Your task to perform on an android device: open app "Microsoft Outlook" (install if not already installed) Image 0: 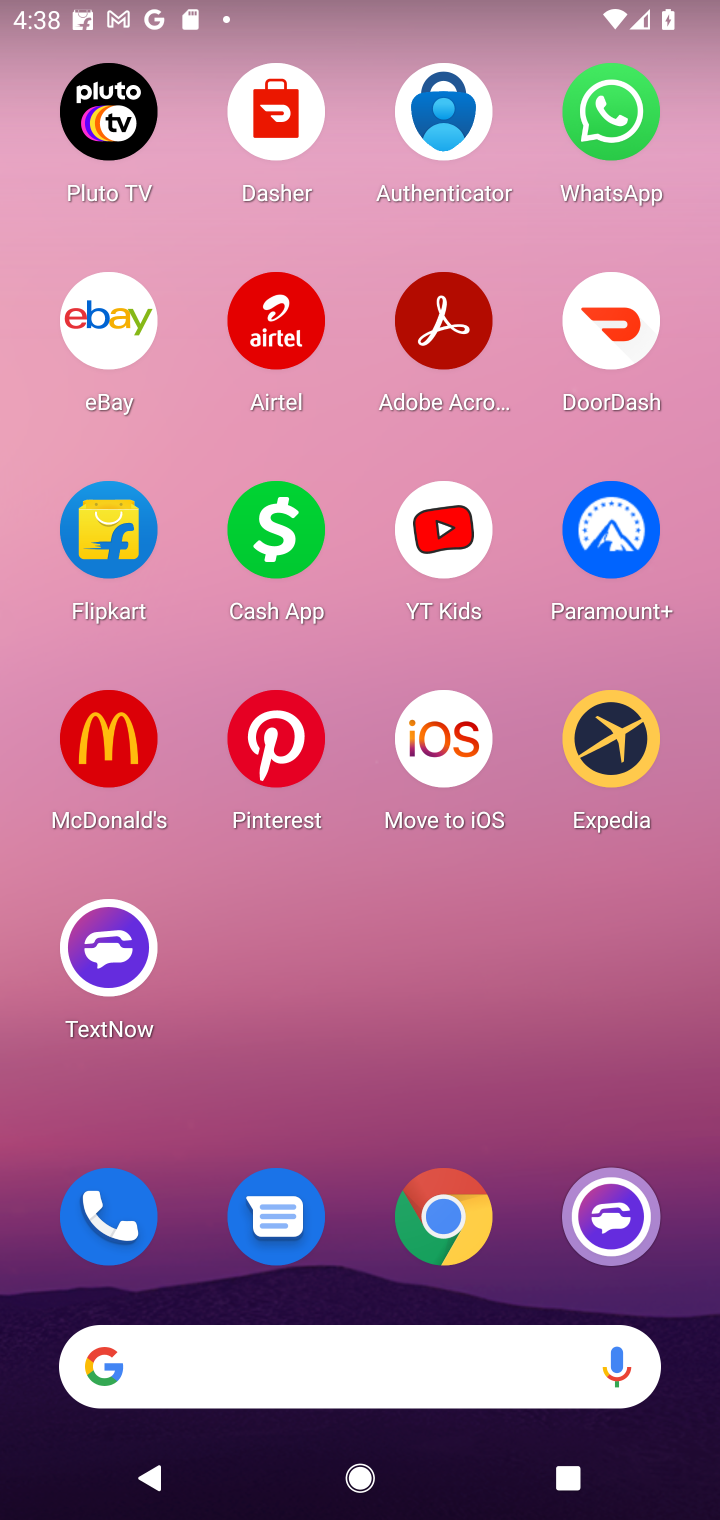
Step 0: click (424, 196)
Your task to perform on an android device: open app "Microsoft Outlook" (install if not already installed) Image 1: 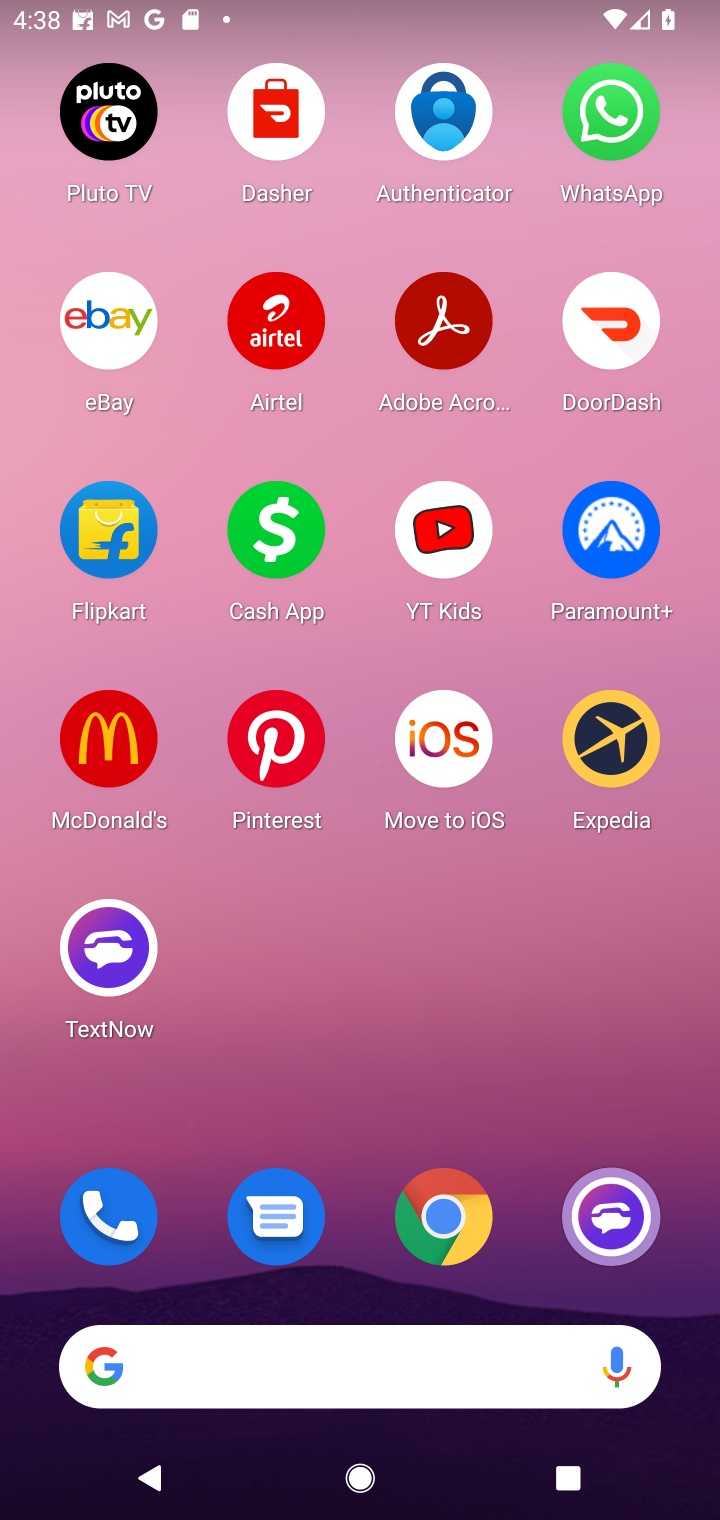
Step 1: drag from (353, 627) to (368, 0)
Your task to perform on an android device: open app "Microsoft Outlook" (install if not already installed) Image 2: 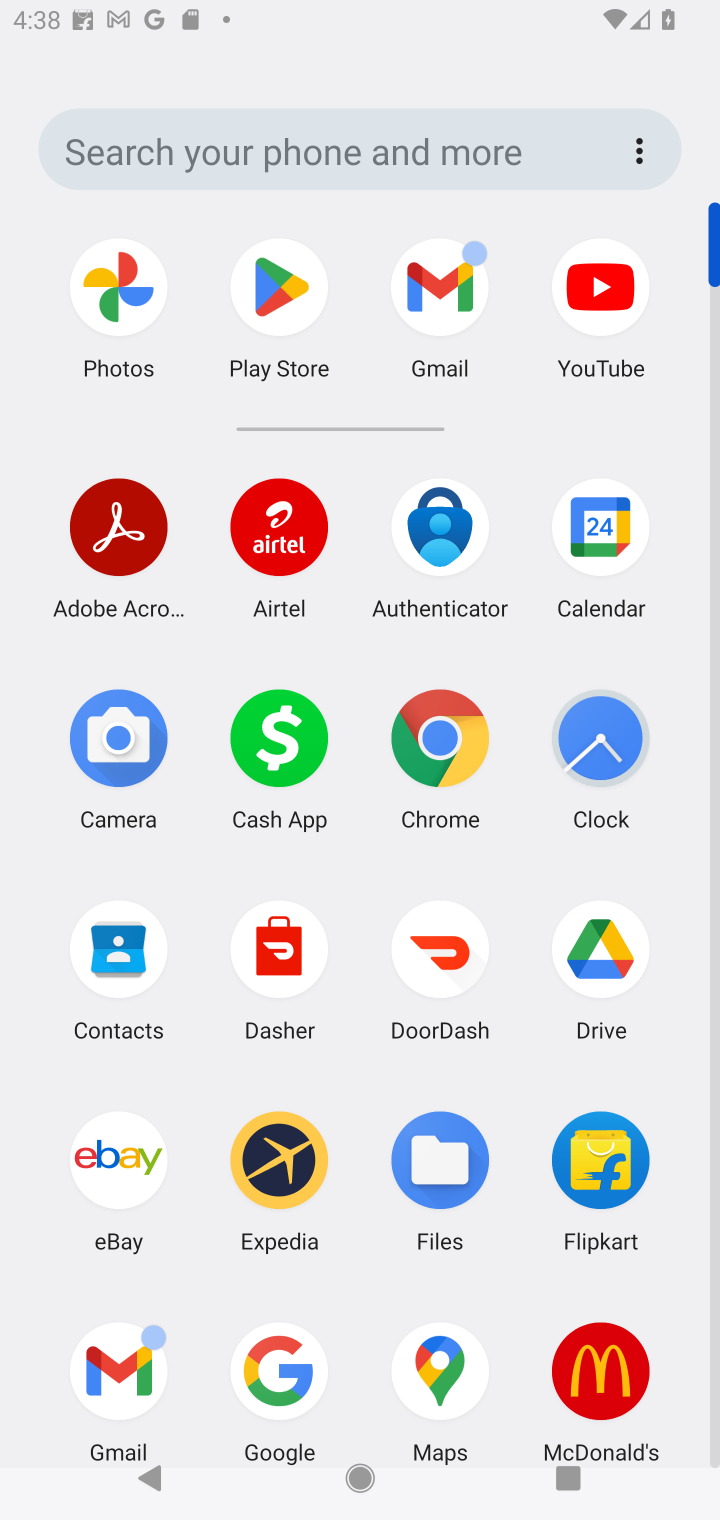
Step 2: click (287, 277)
Your task to perform on an android device: open app "Microsoft Outlook" (install if not already installed) Image 3: 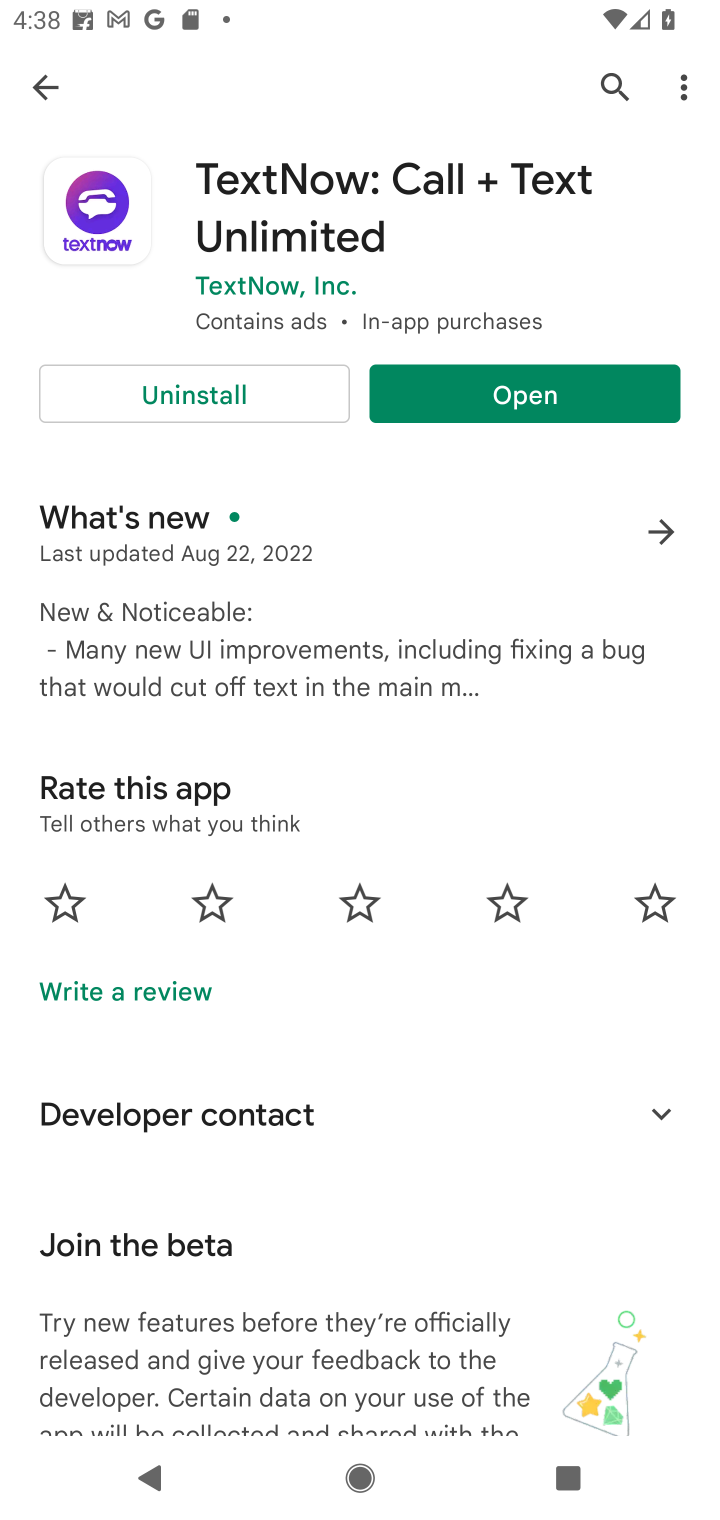
Step 3: click (602, 77)
Your task to perform on an android device: open app "Microsoft Outlook" (install if not already installed) Image 4: 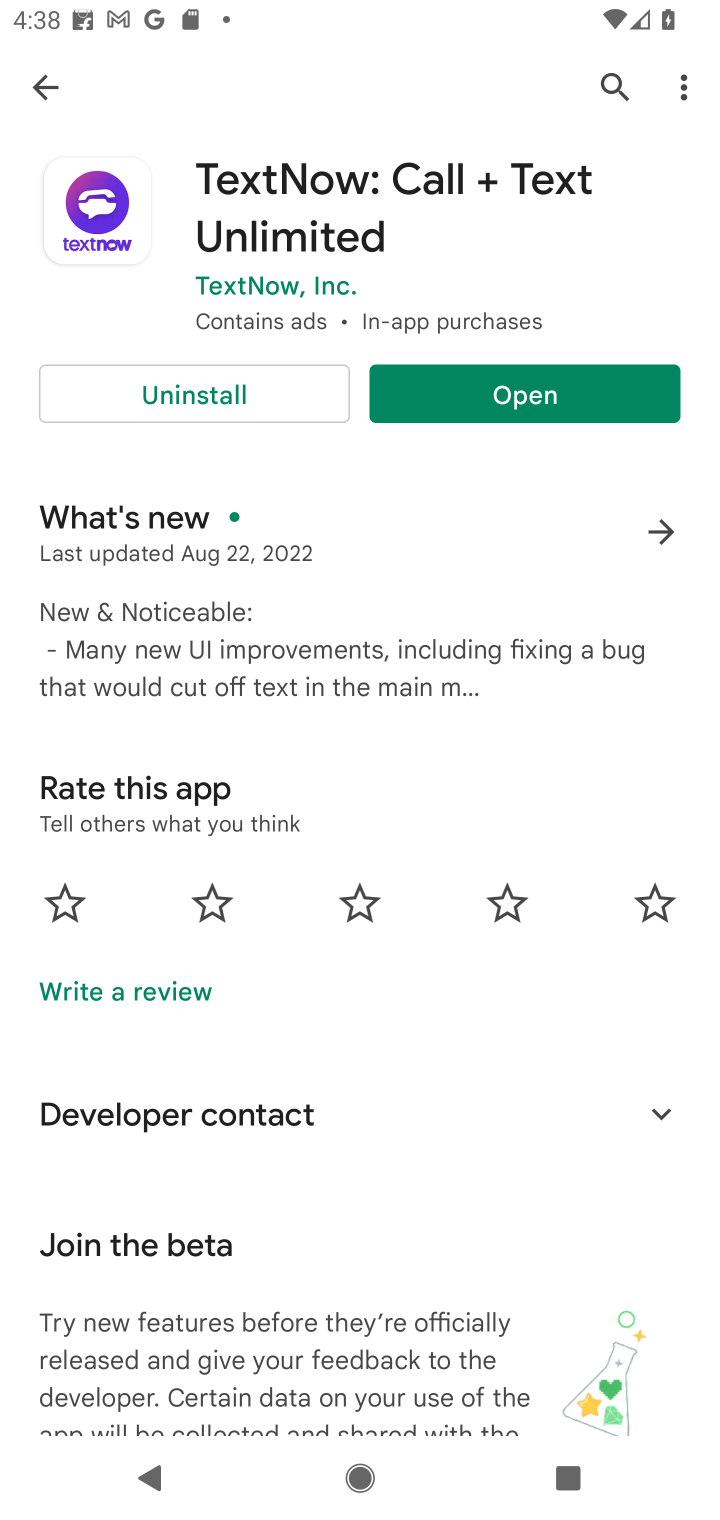
Step 4: click (619, 95)
Your task to perform on an android device: open app "Microsoft Outlook" (install if not already installed) Image 5: 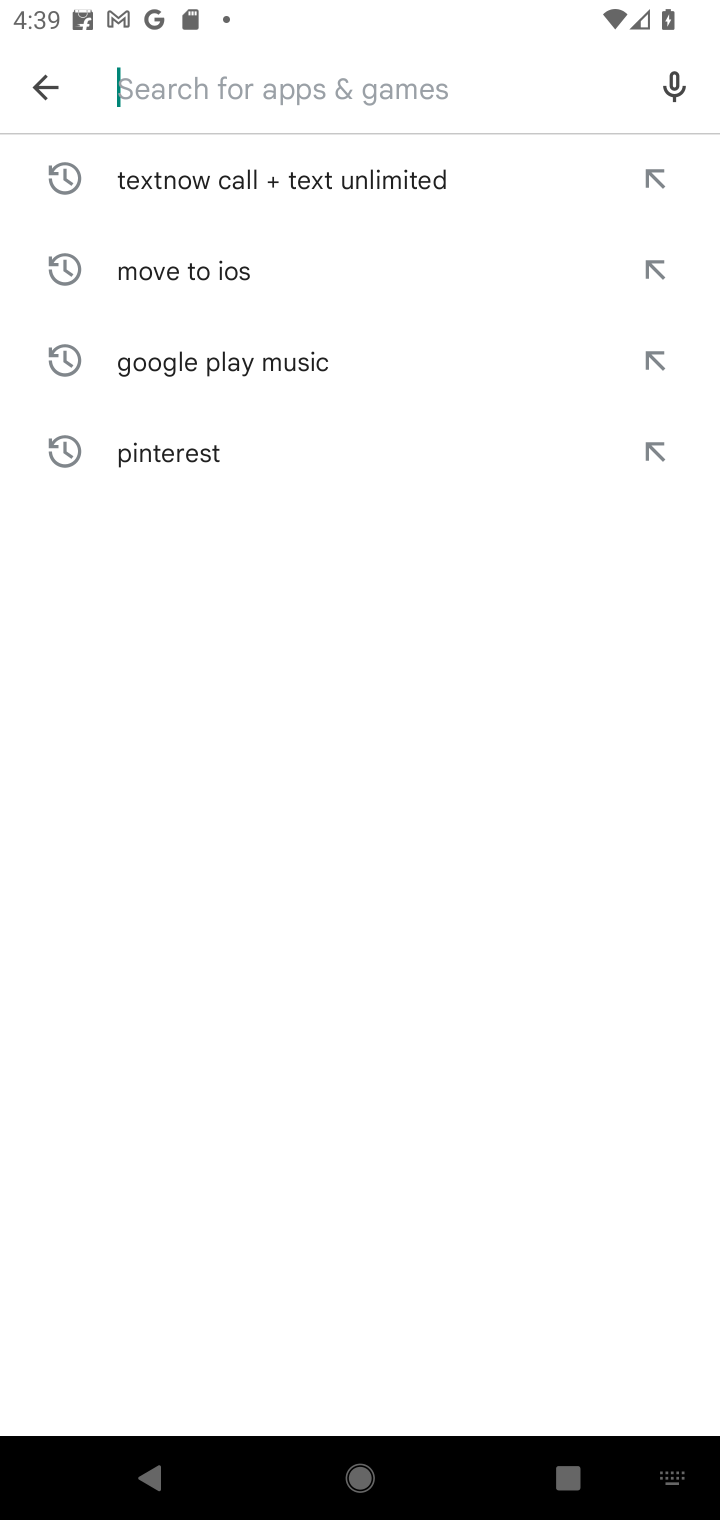
Step 5: type "Microsoft Outlook"
Your task to perform on an android device: open app "Microsoft Outlook" (install if not already installed) Image 6: 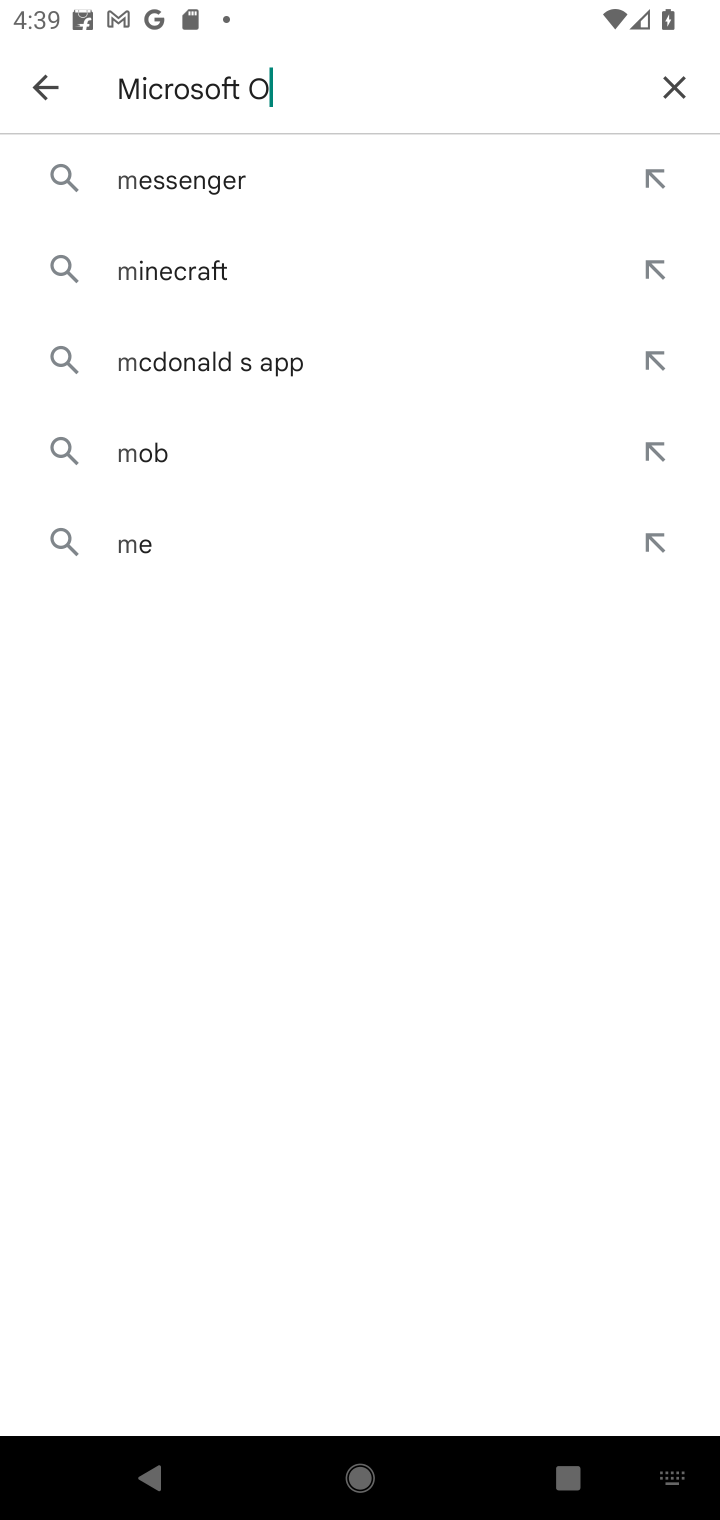
Step 6: type ""
Your task to perform on an android device: open app "Microsoft Outlook" (install if not already installed) Image 7: 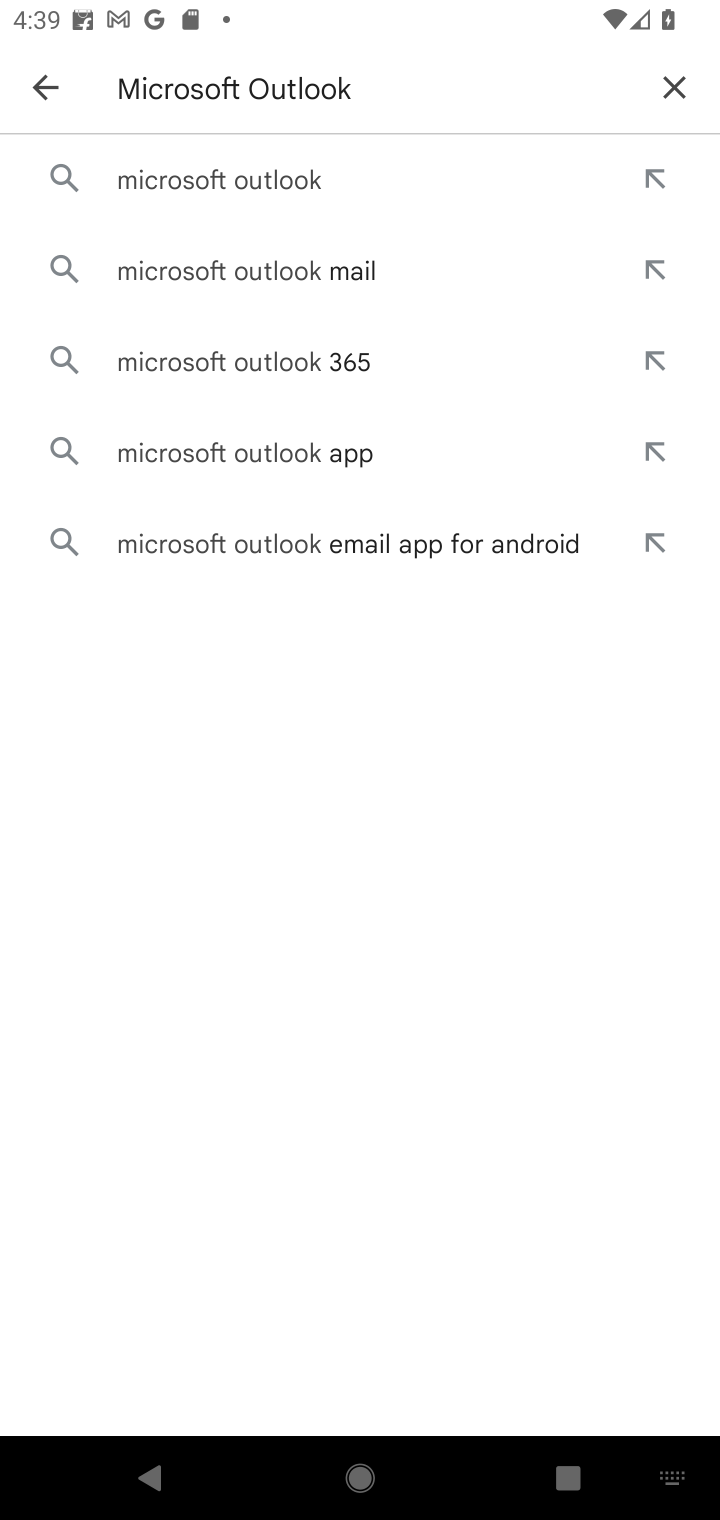
Step 7: click (336, 194)
Your task to perform on an android device: open app "Microsoft Outlook" (install if not already installed) Image 8: 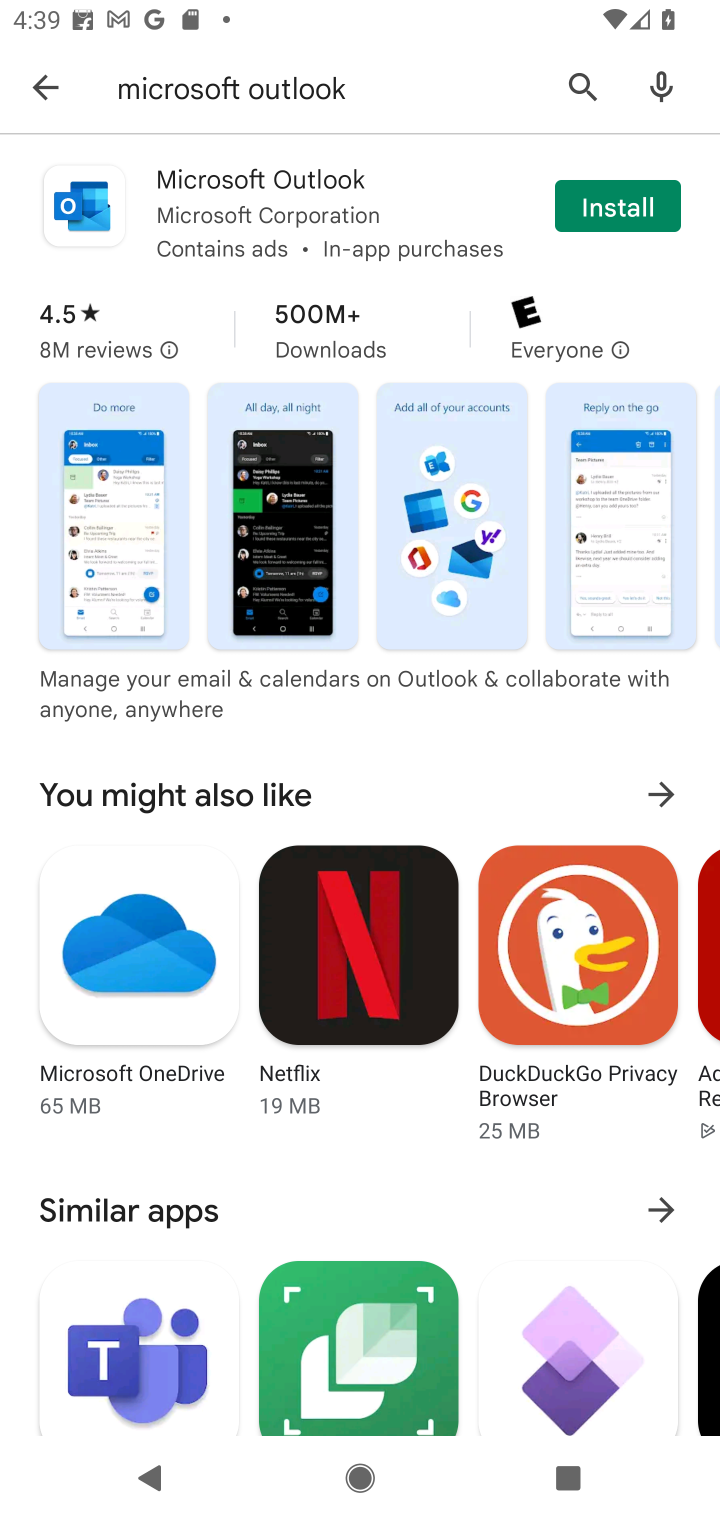
Step 8: click (644, 203)
Your task to perform on an android device: open app "Microsoft Outlook" (install if not already installed) Image 9: 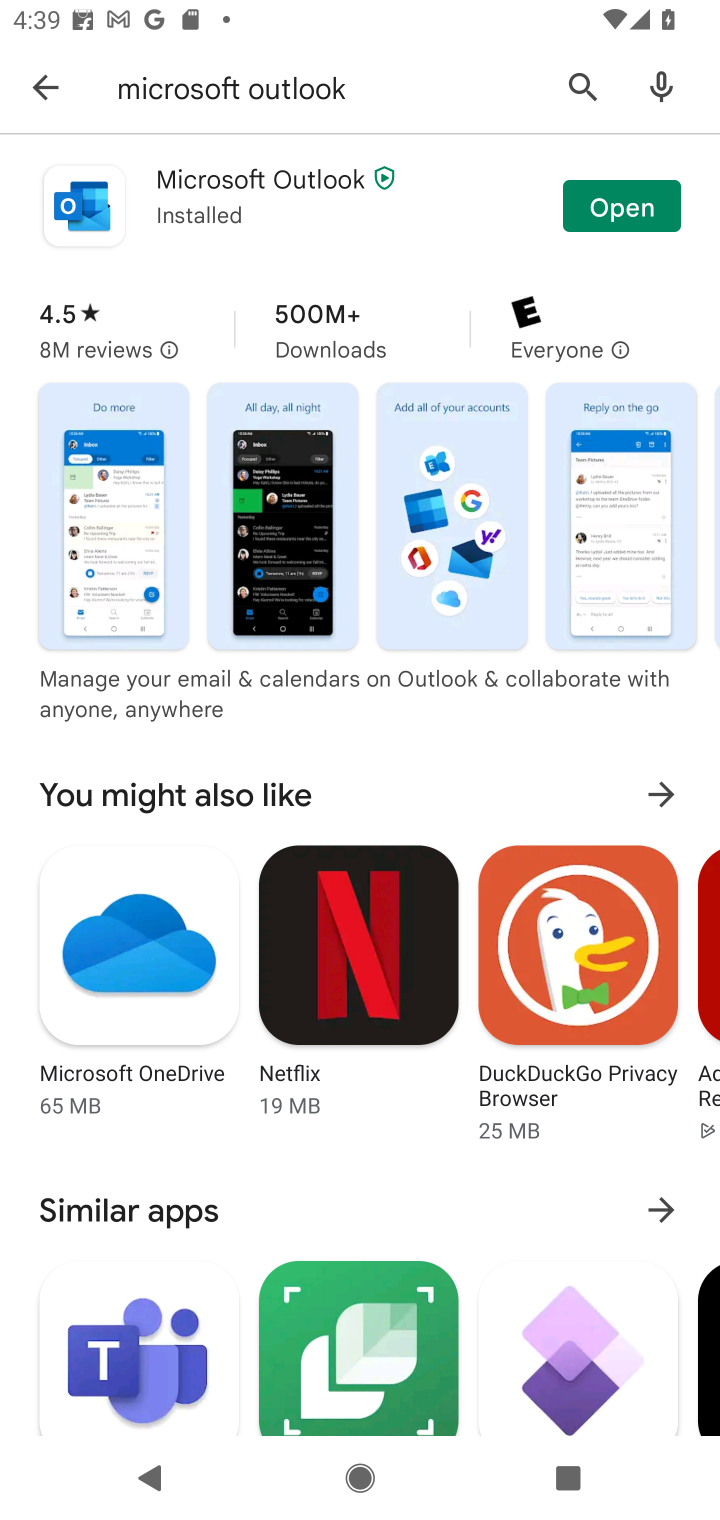
Step 9: click (644, 203)
Your task to perform on an android device: open app "Microsoft Outlook" (install if not already installed) Image 10: 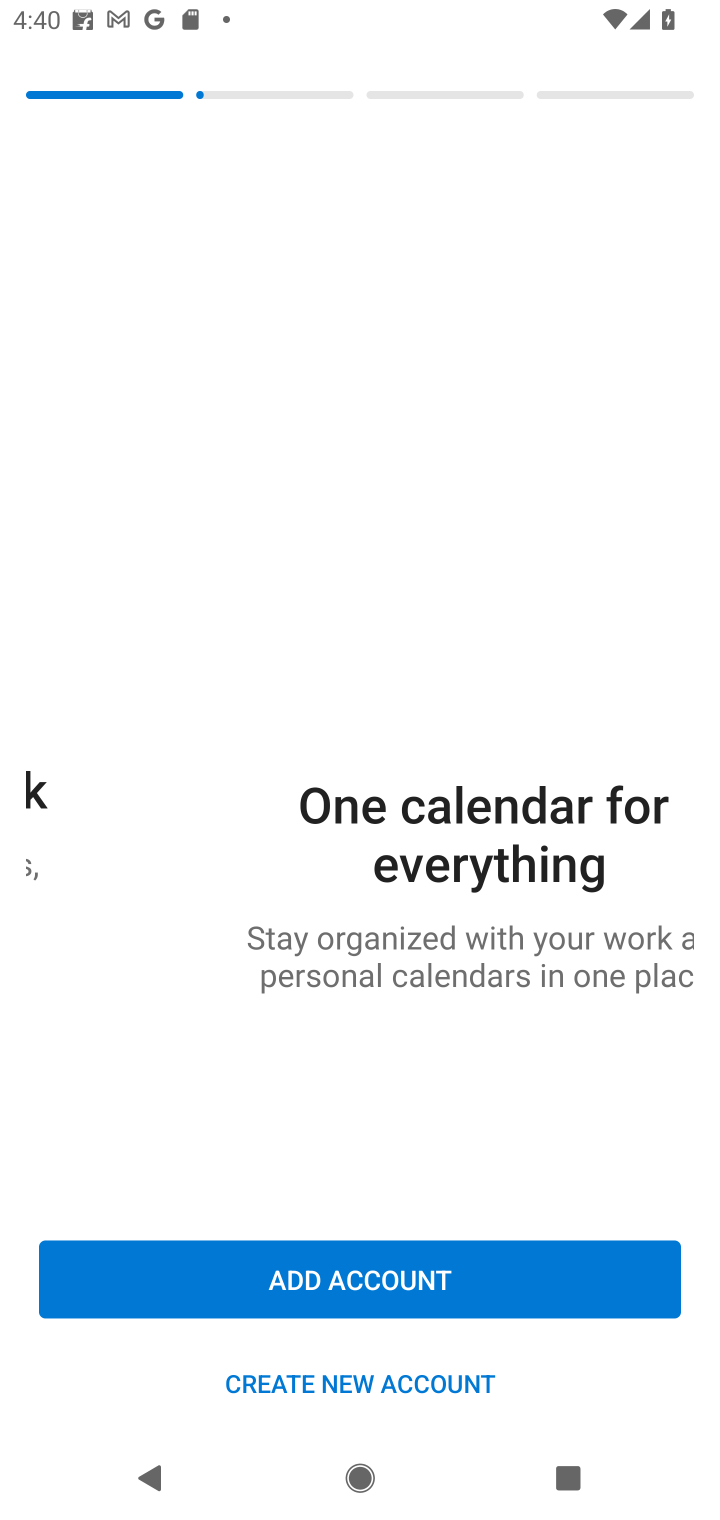
Step 10: task complete